Your task to perform on an android device: Search for Italian restaurants on Maps Image 0: 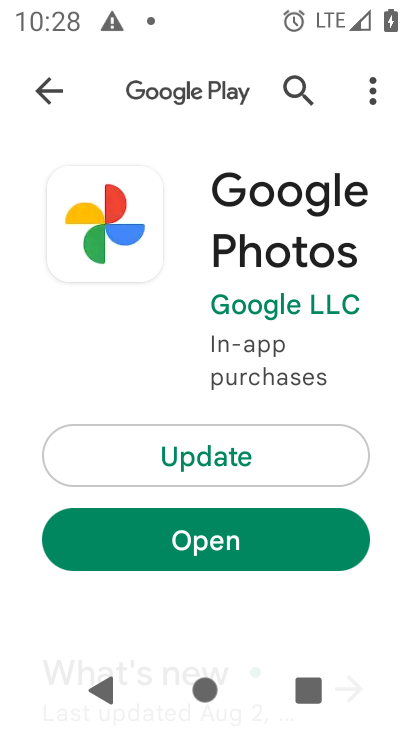
Step 0: press home button
Your task to perform on an android device: Search for Italian restaurants on Maps Image 1: 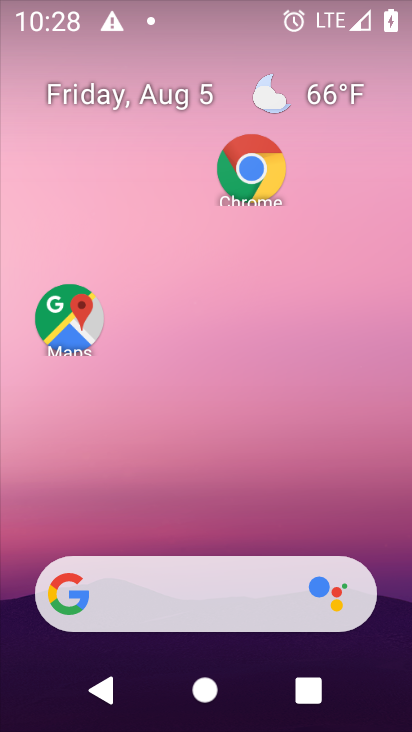
Step 1: click (68, 332)
Your task to perform on an android device: Search for Italian restaurants on Maps Image 2: 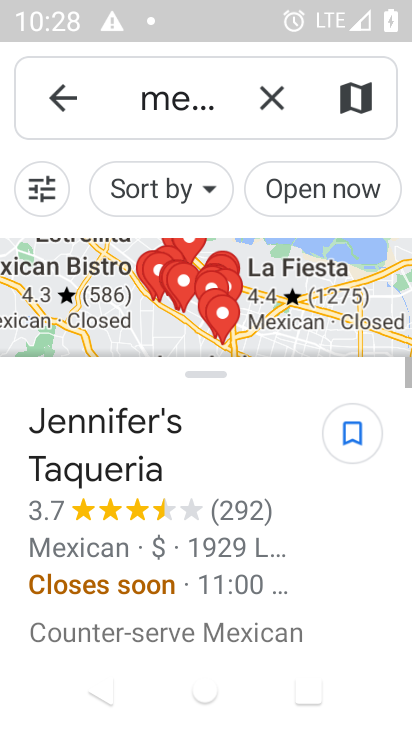
Step 2: click (272, 89)
Your task to perform on an android device: Search for Italian restaurants on Maps Image 3: 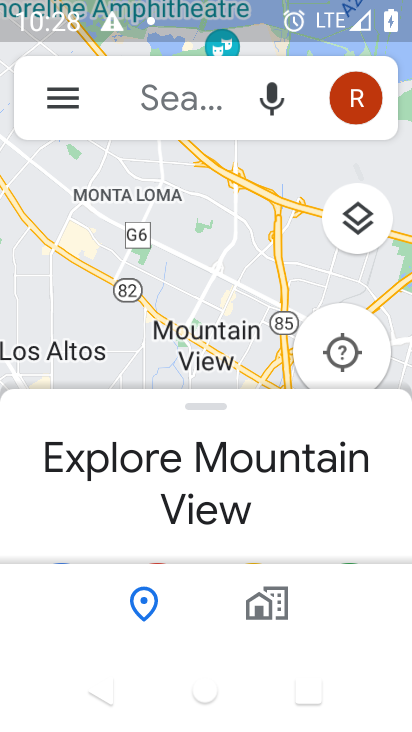
Step 3: click (182, 104)
Your task to perform on an android device: Search for Italian restaurants on Maps Image 4: 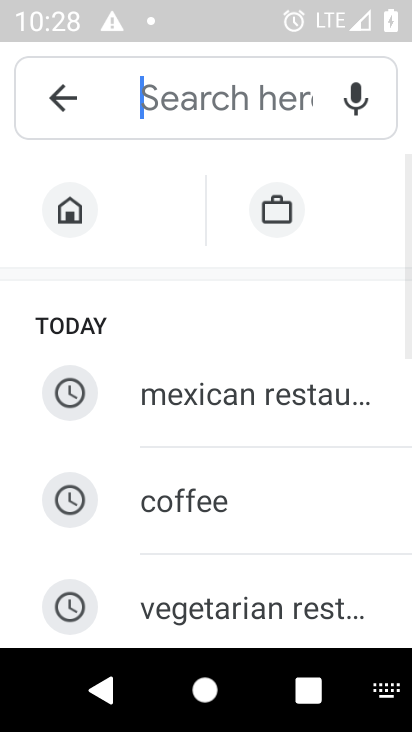
Step 4: drag from (225, 586) to (232, 256)
Your task to perform on an android device: Search for Italian restaurants on Maps Image 5: 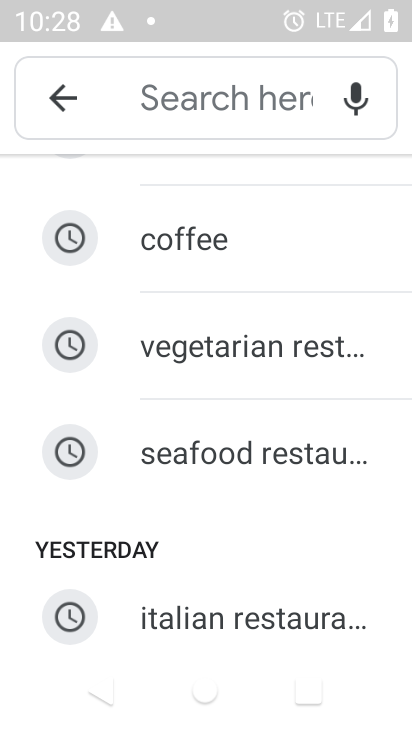
Step 5: click (157, 618)
Your task to perform on an android device: Search for Italian restaurants on Maps Image 6: 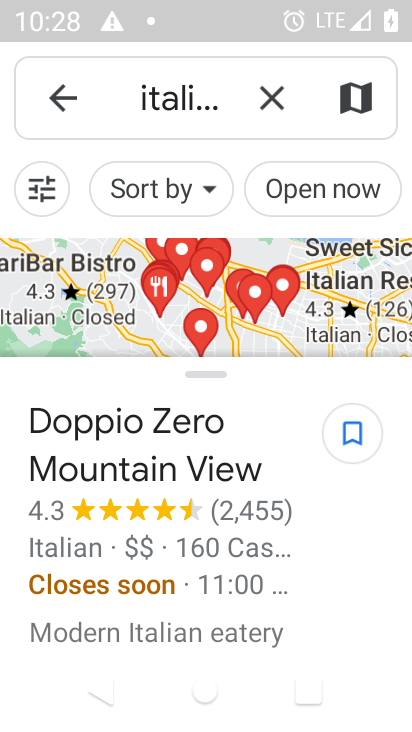
Step 6: task complete